Your task to perform on an android device: add a label to a message in the gmail app Image 0: 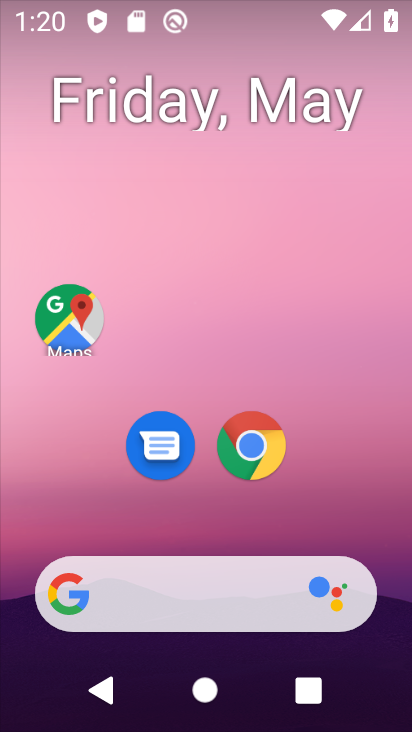
Step 0: drag from (401, 608) to (395, 109)
Your task to perform on an android device: add a label to a message in the gmail app Image 1: 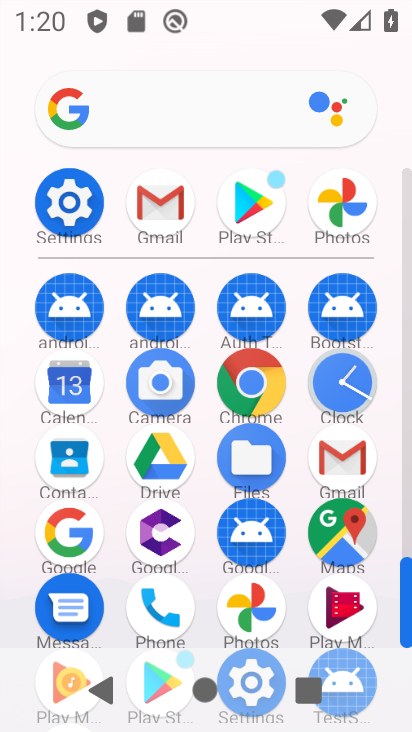
Step 1: click (409, 539)
Your task to perform on an android device: add a label to a message in the gmail app Image 2: 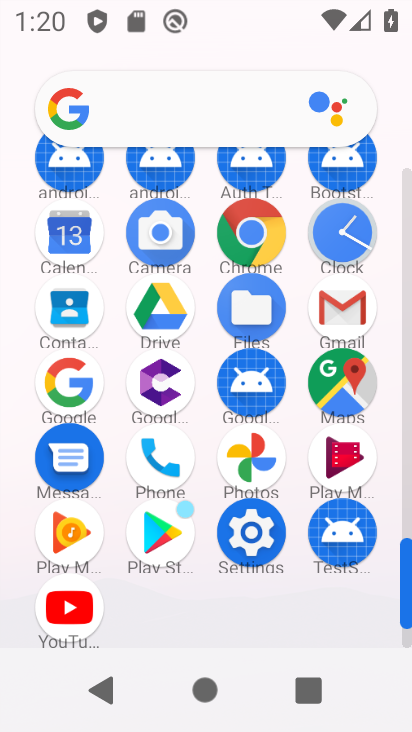
Step 2: click (341, 313)
Your task to perform on an android device: add a label to a message in the gmail app Image 3: 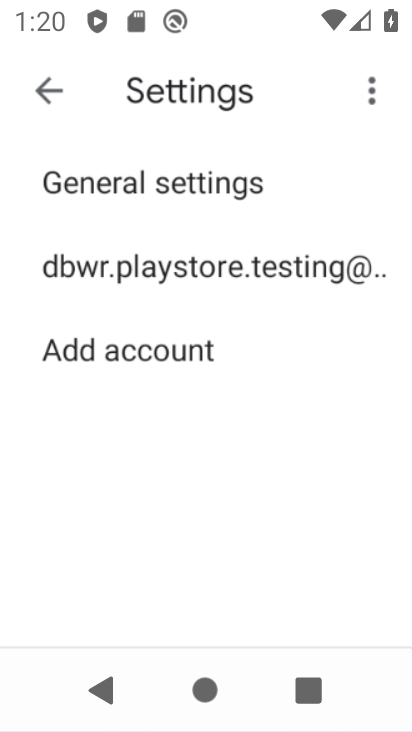
Step 3: click (341, 313)
Your task to perform on an android device: add a label to a message in the gmail app Image 4: 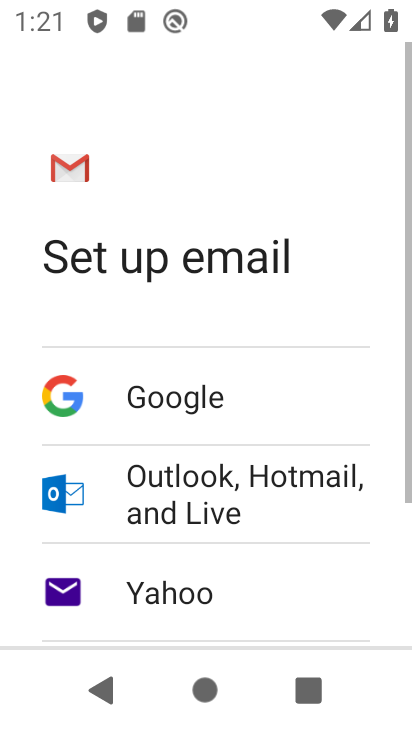
Step 4: press back button
Your task to perform on an android device: add a label to a message in the gmail app Image 5: 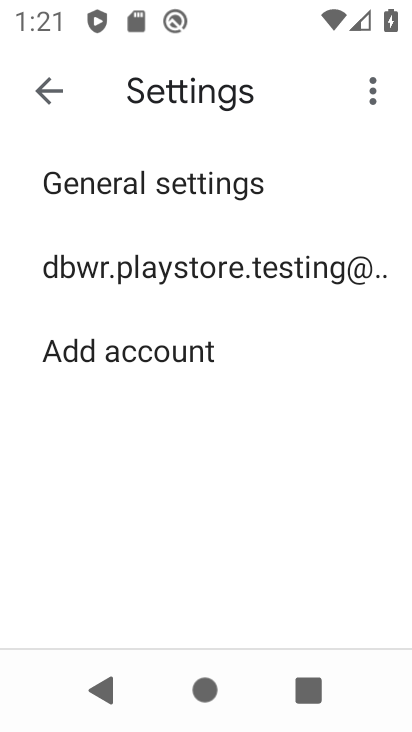
Step 5: press back button
Your task to perform on an android device: add a label to a message in the gmail app Image 6: 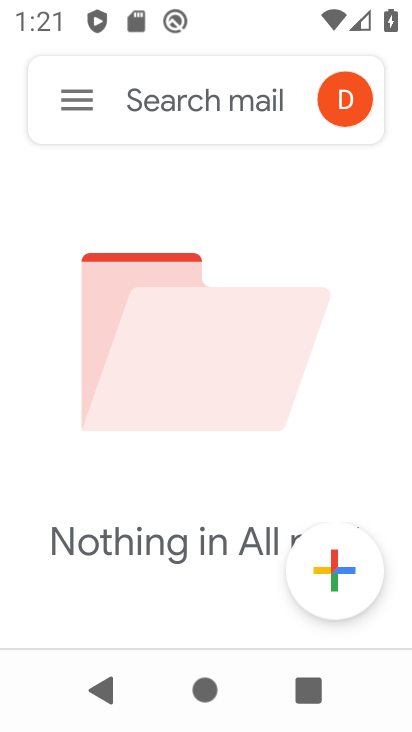
Step 6: click (77, 97)
Your task to perform on an android device: add a label to a message in the gmail app Image 7: 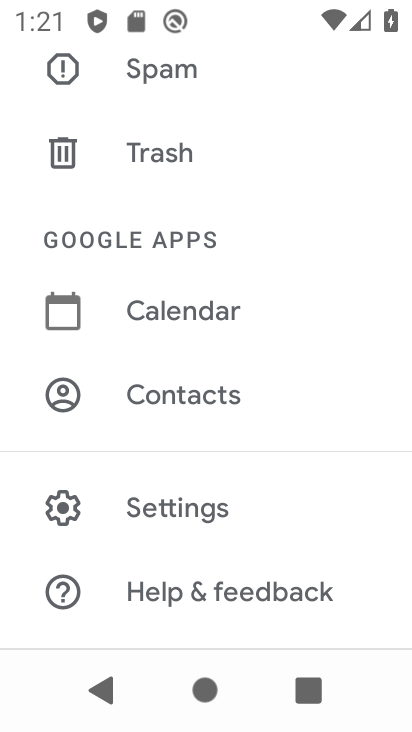
Step 7: drag from (274, 236) to (260, 400)
Your task to perform on an android device: add a label to a message in the gmail app Image 8: 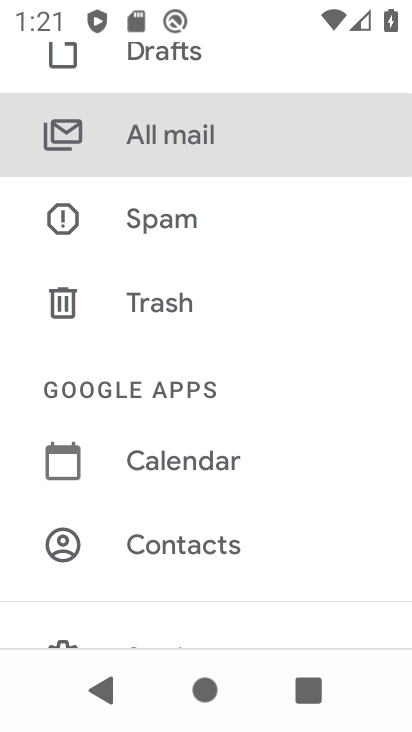
Step 8: click (180, 131)
Your task to perform on an android device: add a label to a message in the gmail app Image 9: 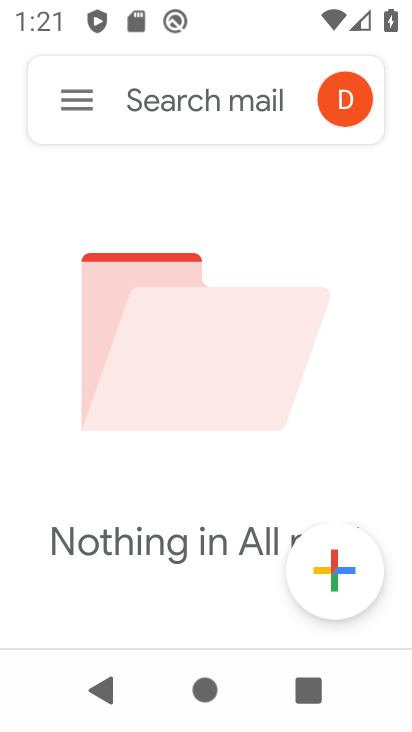
Step 9: task complete